Your task to perform on an android device: add a contact in the contacts app Image 0: 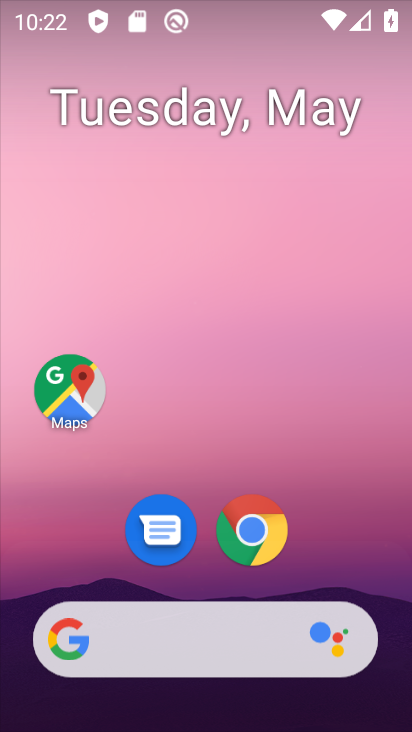
Step 0: drag from (293, 535) to (293, 142)
Your task to perform on an android device: add a contact in the contacts app Image 1: 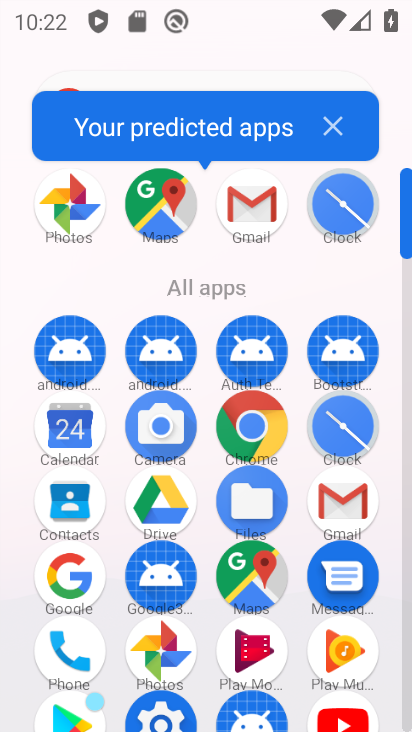
Step 1: click (84, 503)
Your task to perform on an android device: add a contact in the contacts app Image 2: 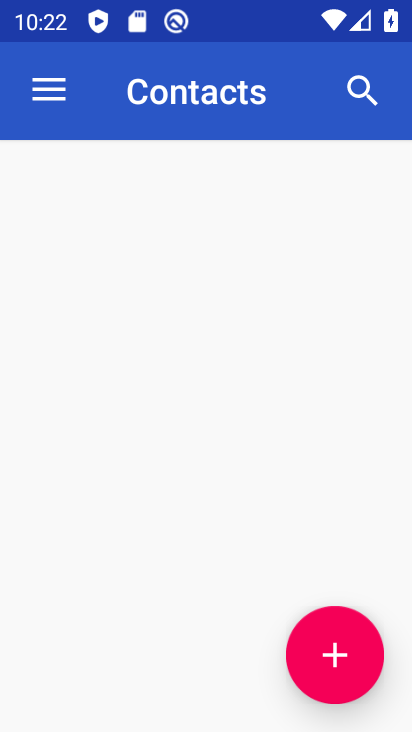
Step 2: click (335, 636)
Your task to perform on an android device: add a contact in the contacts app Image 3: 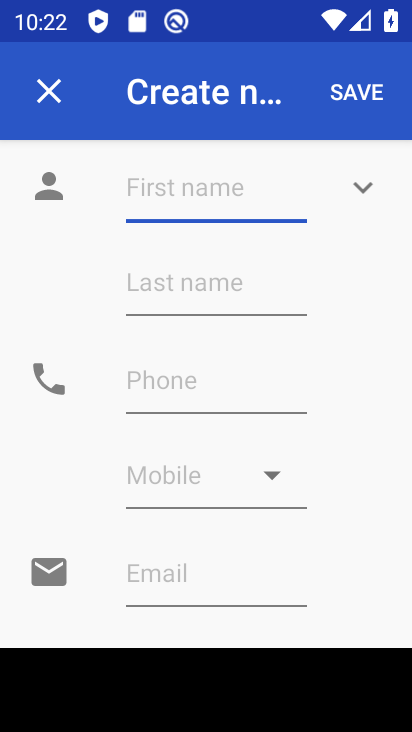
Step 3: type "mashwrya"
Your task to perform on an android device: add a contact in the contacts app Image 4: 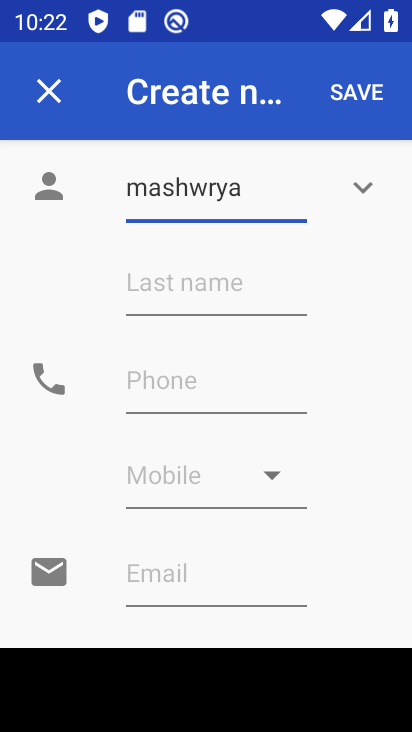
Step 4: click (347, 99)
Your task to perform on an android device: add a contact in the contacts app Image 5: 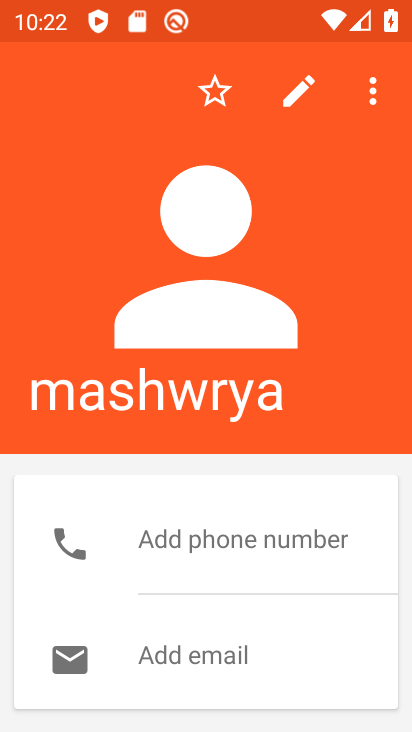
Step 5: task complete